Your task to perform on an android device: delete the emails in spam in the gmail app Image 0: 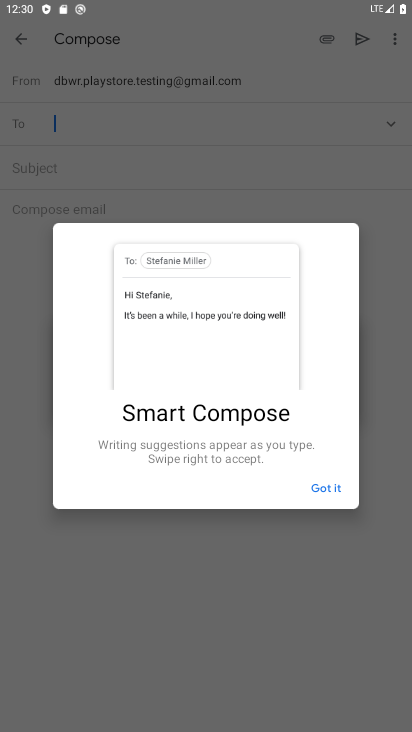
Step 0: press home button
Your task to perform on an android device: delete the emails in spam in the gmail app Image 1: 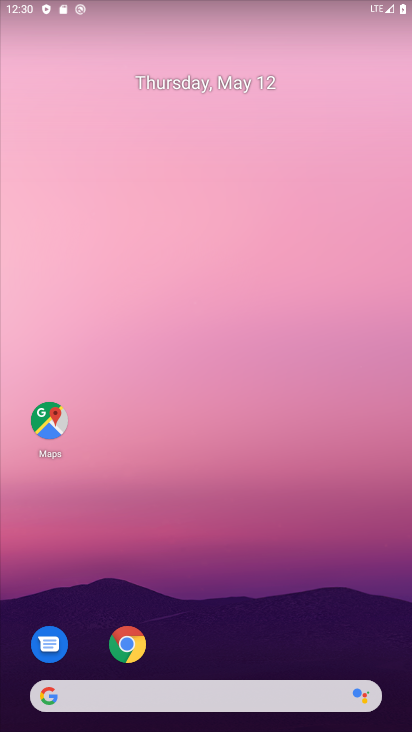
Step 1: drag from (244, 550) to (209, 56)
Your task to perform on an android device: delete the emails in spam in the gmail app Image 2: 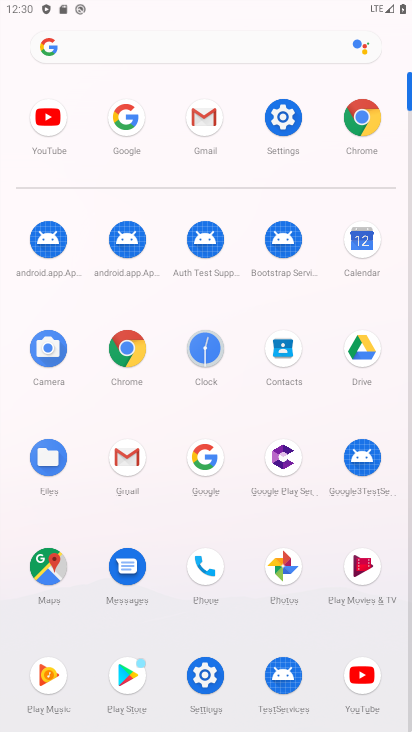
Step 2: click (212, 125)
Your task to perform on an android device: delete the emails in spam in the gmail app Image 3: 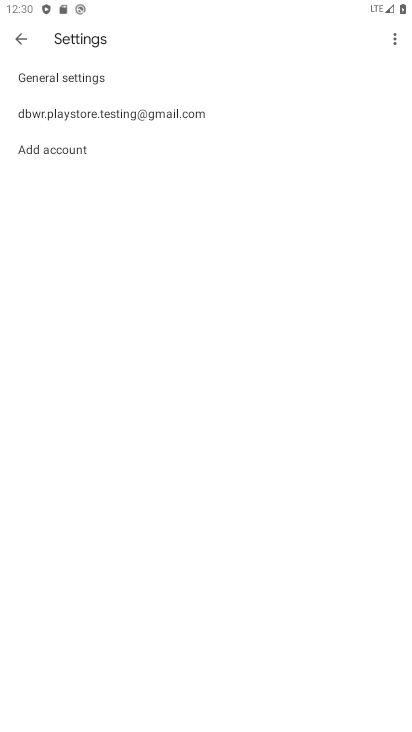
Step 3: click (16, 43)
Your task to perform on an android device: delete the emails in spam in the gmail app Image 4: 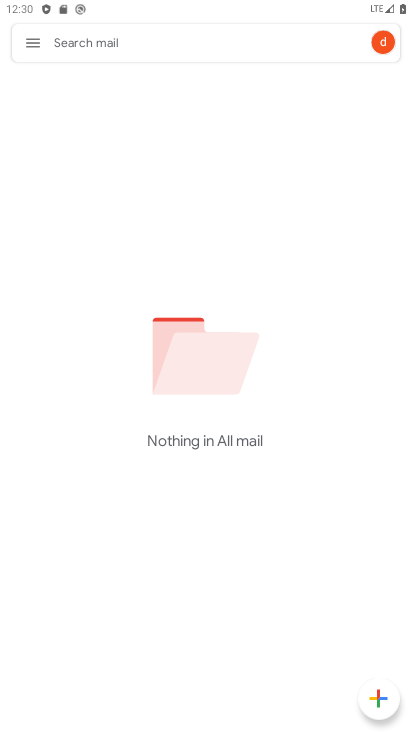
Step 4: click (30, 41)
Your task to perform on an android device: delete the emails in spam in the gmail app Image 5: 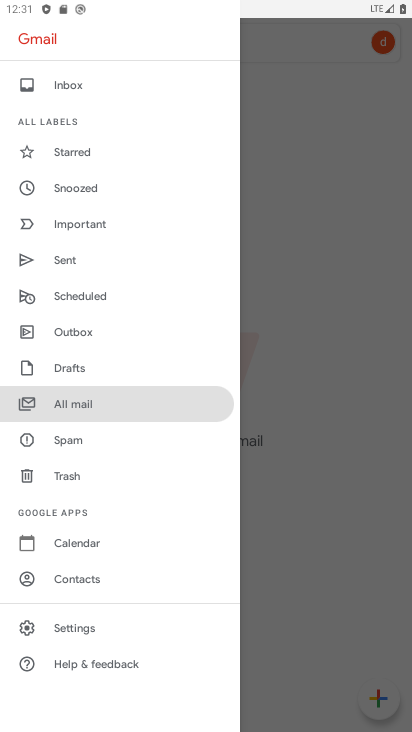
Step 5: click (101, 434)
Your task to perform on an android device: delete the emails in spam in the gmail app Image 6: 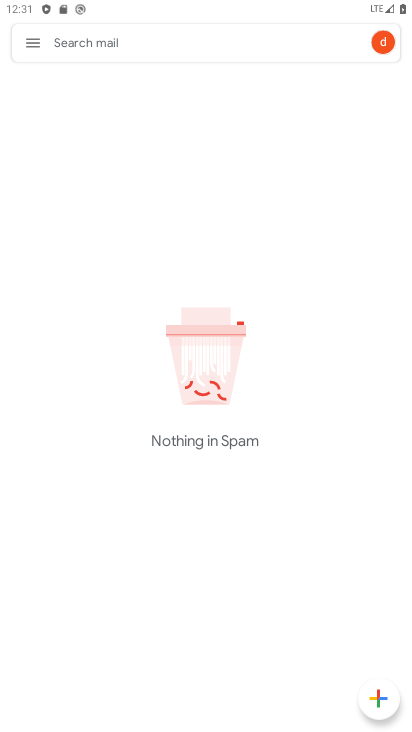
Step 6: task complete